Your task to perform on an android device: Go to Amazon Image 0: 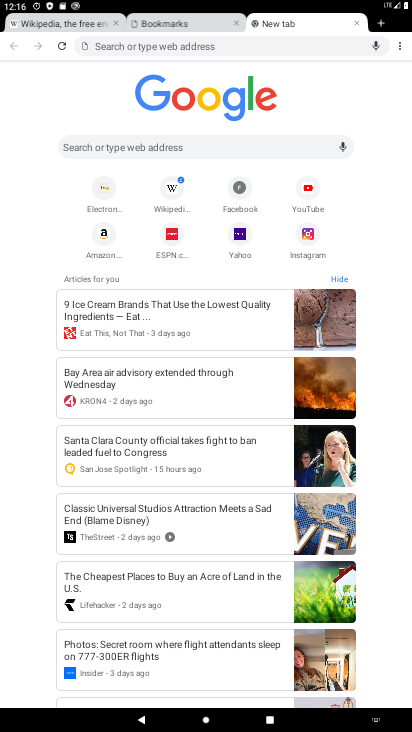
Step 0: click (95, 235)
Your task to perform on an android device: Go to Amazon Image 1: 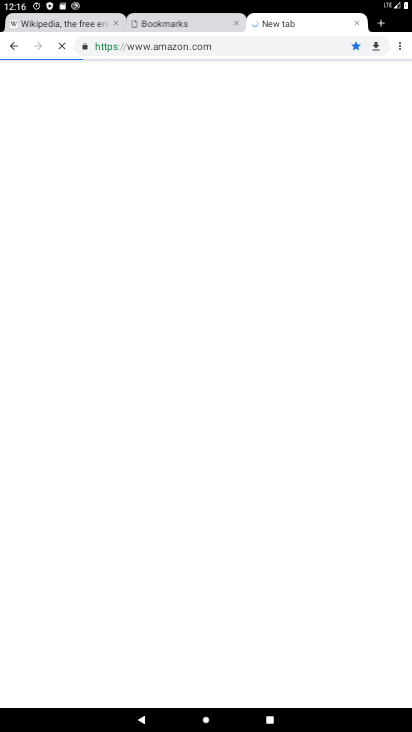
Step 1: task complete